Your task to perform on an android device: open a new tab in the chrome app Image 0: 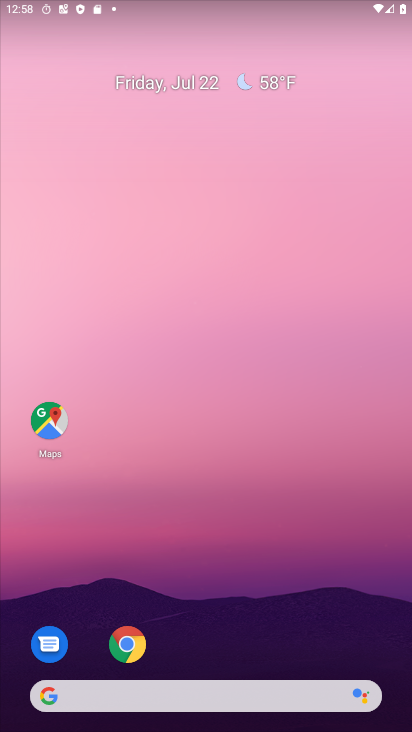
Step 0: click (352, 63)
Your task to perform on an android device: open a new tab in the chrome app Image 1: 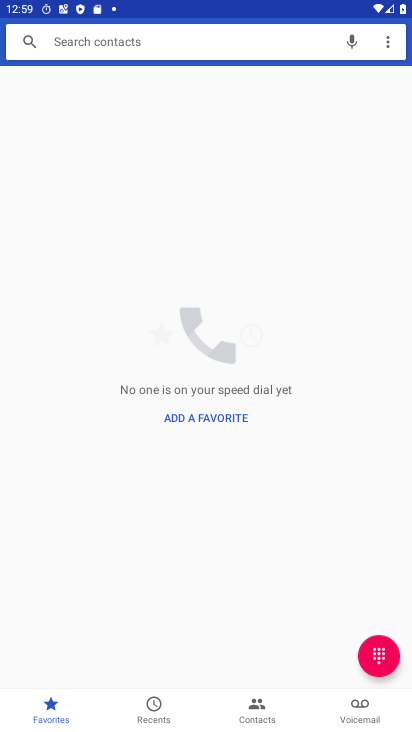
Step 1: drag from (237, 591) to (257, 392)
Your task to perform on an android device: open a new tab in the chrome app Image 2: 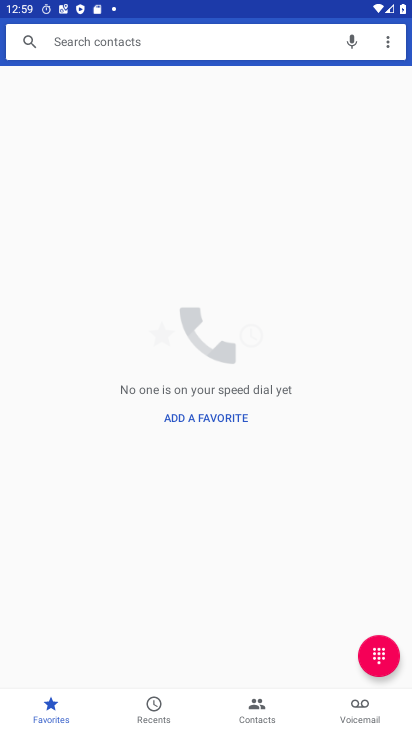
Step 2: press home button
Your task to perform on an android device: open a new tab in the chrome app Image 3: 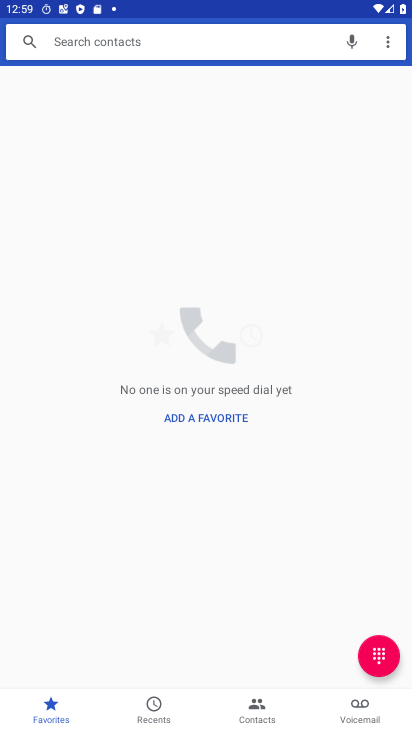
Step 3: press home button
Your task to perform on an android device: open a new tab in the chrome app Image 4: 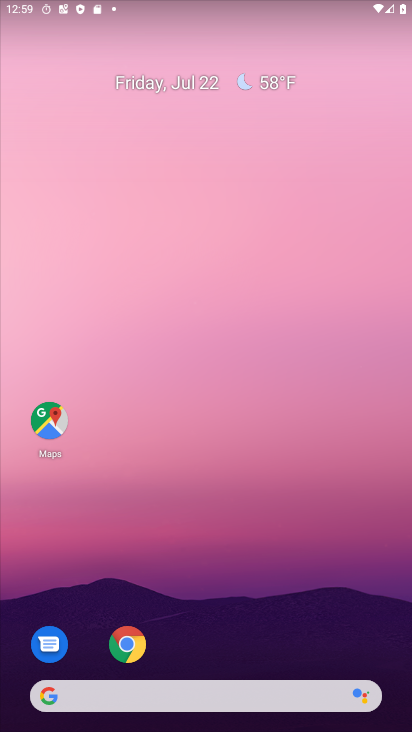
Step 4: drag from (256, 330) to (360, 28)
Your task to perform on an android device: open a new tab in the chrome app Image 5: 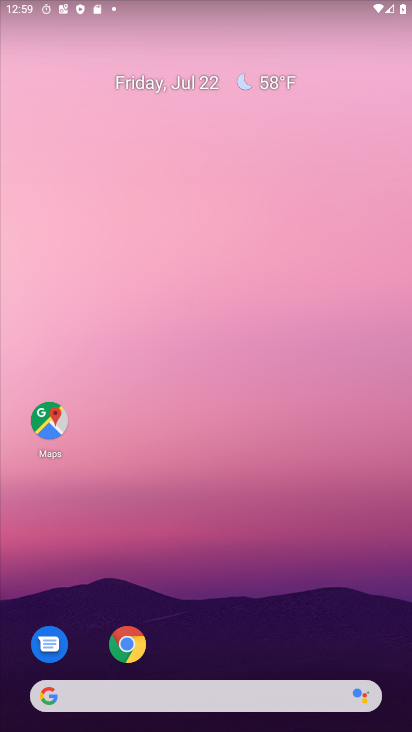
Step 5: drag from (180, 617) to (301, 147)
Your task to perform on an android device: open a new tab in the chrome app Image 6: 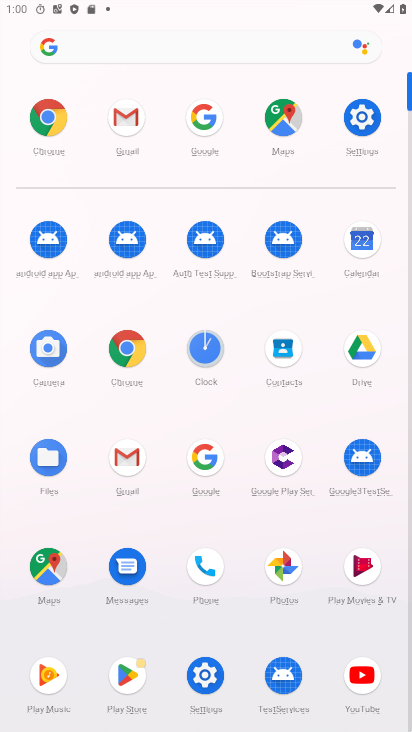
Step 6: click (115, 351)
Your task to perform on an android device: open a new tab in the chrome app Image 7: 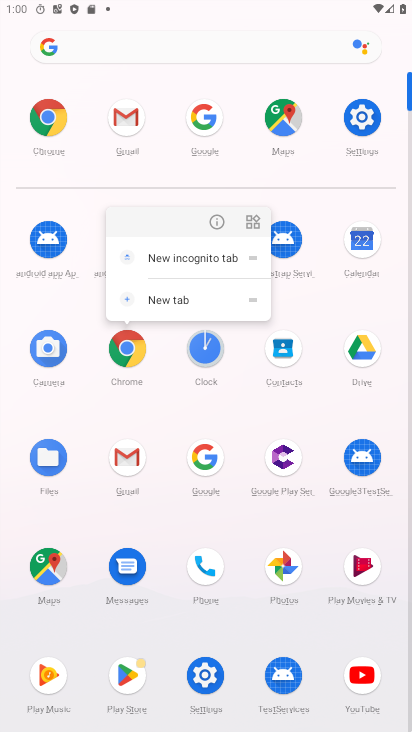
Step 7: click (224, 222)
Your task to perform on an android device: open a new tab in the chrome app Image 8: 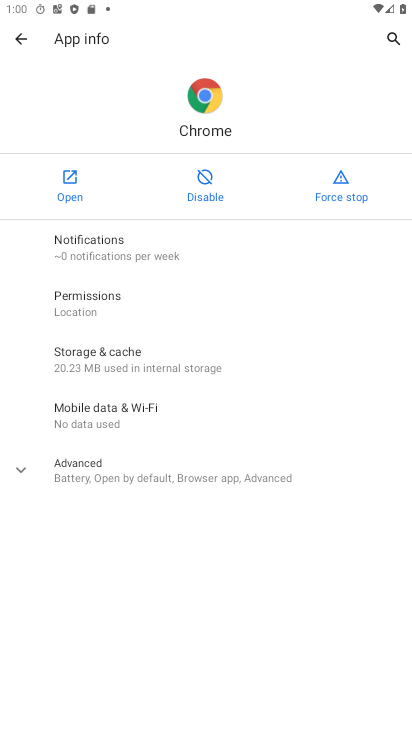
Step 8: click (68, 188)
Your task to perform on an android device: open a new tab in the chrome app Image 9: 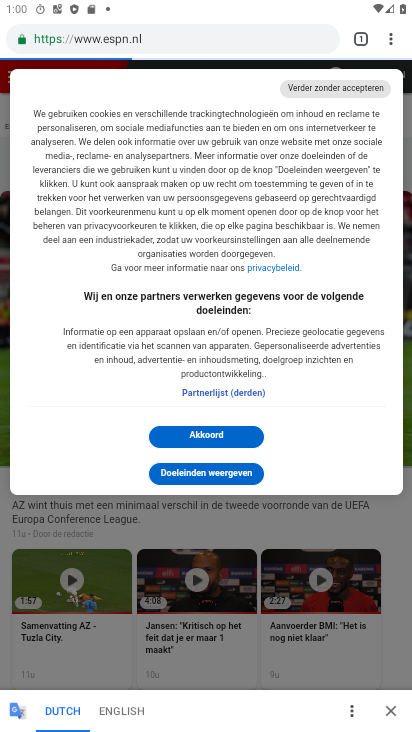
Step 9: click (393, 35)
Your task to perform on an android device: open a new tab in the chrome app Image 10: 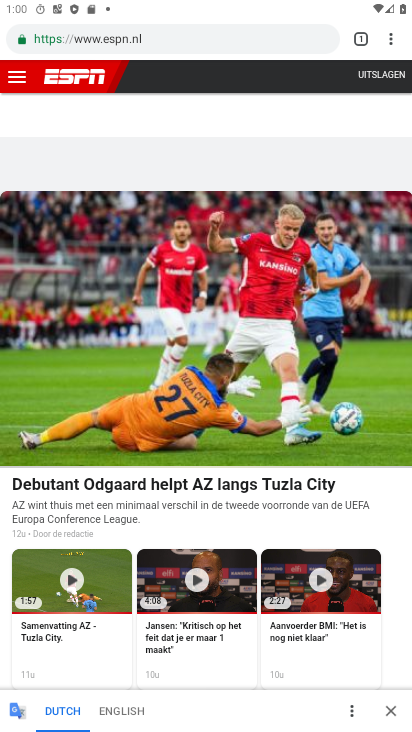
Step 10: task complete